Your task to perform on an android device: open a bookmark in the chrome app Image 0: 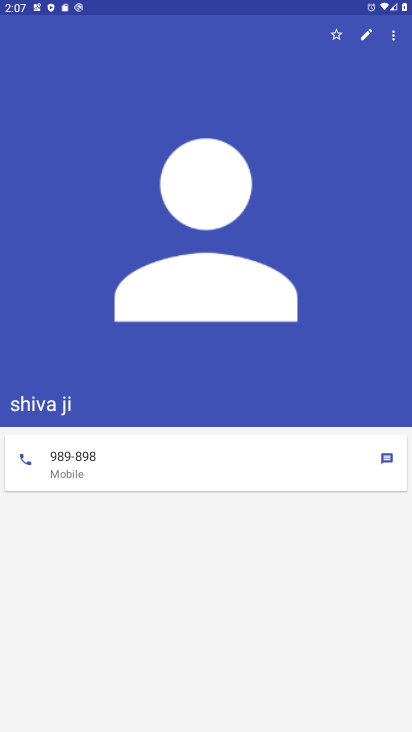
Step 0: press home button
Your task to perform on an android device: open a bookmark in the chrome app Image 1: 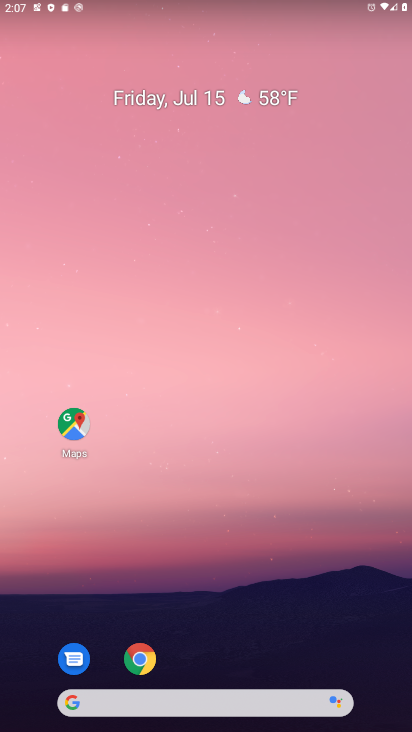
Step 1: click (145, 660)
Your task to perform on an android device: open a bookmark in the chrome app Image 2: 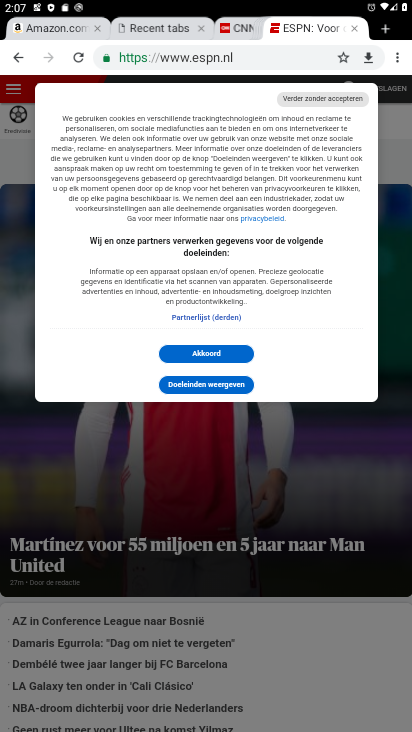
Step 2: click (398, 59)
Your task to perform on an android device: open a bookmark in the chrome app Image 3: 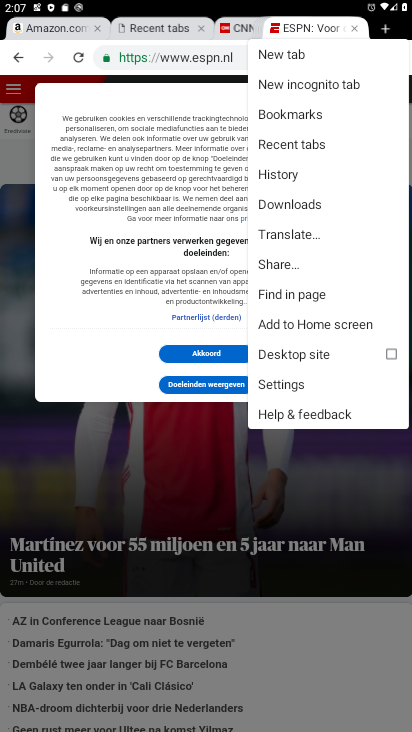
Step 3: click (284, 114)
Your task to perform on an android device: open a bookmark in the chrome app Image 4: 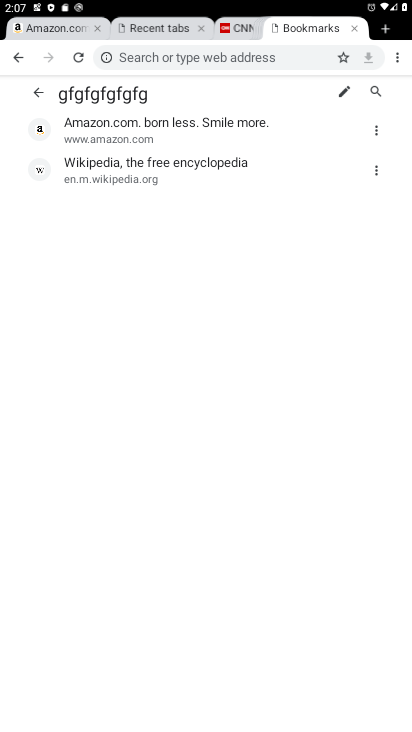
Step 4: click (129, 166)
Your task to perform on an android device: open a bookmark in the chrome app Image 5: 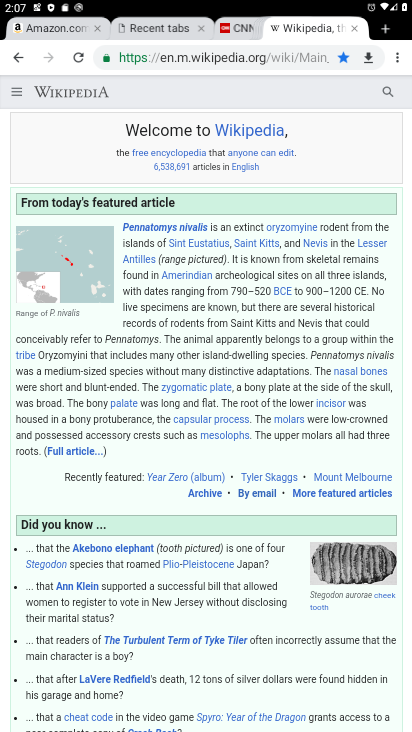
Step 5: task complete